Your task to perform on an android device: turn off notifications settings in the gmail app Image 0: 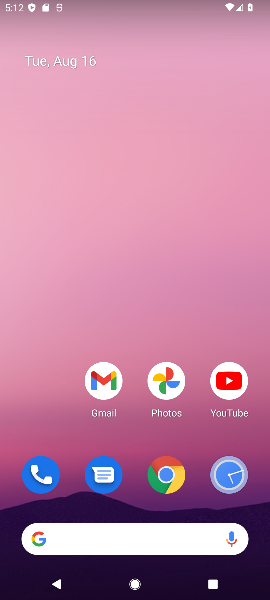
Step 0: drag from (192, 504) to (87, 27)
Your task to perform on an android device: turn off notifications settings in the gmail app Image 1: 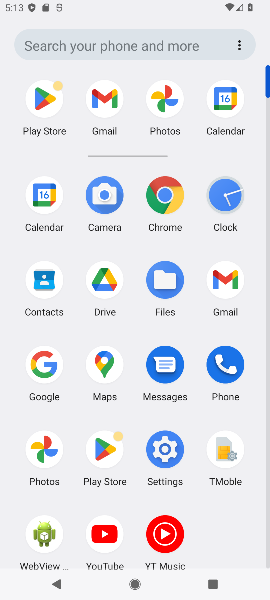
Step 1: click (160, 454)
Your task to perform on an android device: turn off notifications settings in the gmail app Image 2: 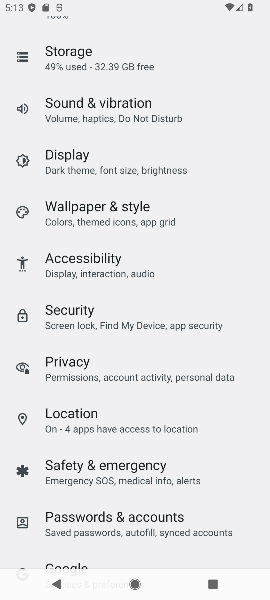
Step 2: drag from (126, 85) to (140, 493)
Your task to perform on an android device: turn off notifications settings in the gmail app Image 3: 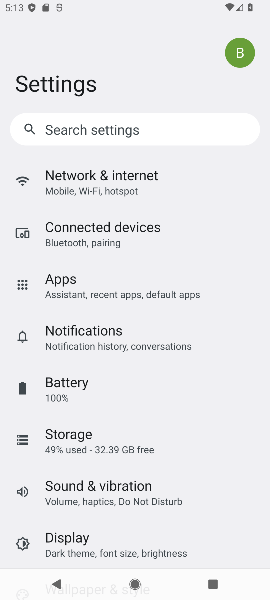
Step 3: click (92, 332)
Your task to perform on an android device: turn off notifications settings in the gmail app Image 4: 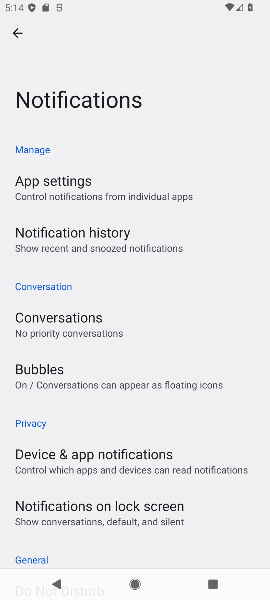
Step 4: task complete